Your task to perform on an android device: turn on location history Image 0: 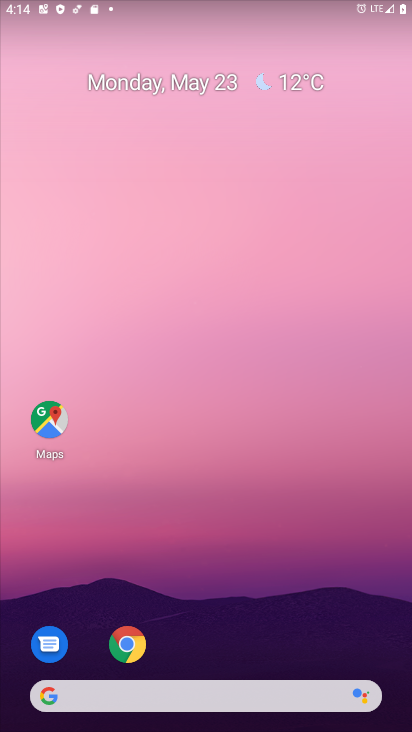
Step 0: drag from (266, 660) to (195, 90)
Your task to perform on an android device: turn on location history Image 1: 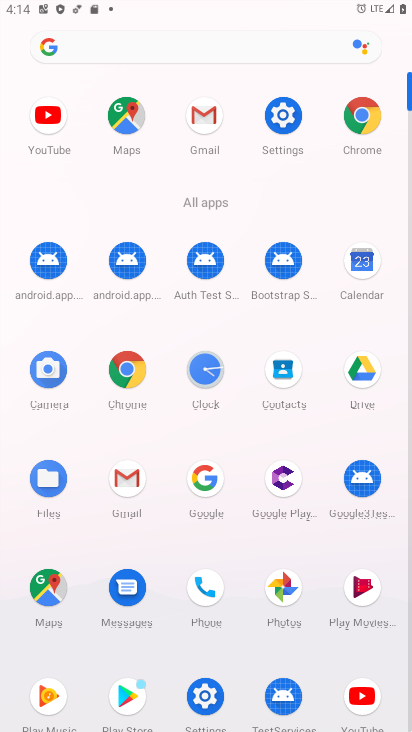
Step 1: click (275, 115)
Your task to perform on an android device: turn on location history Image 2: 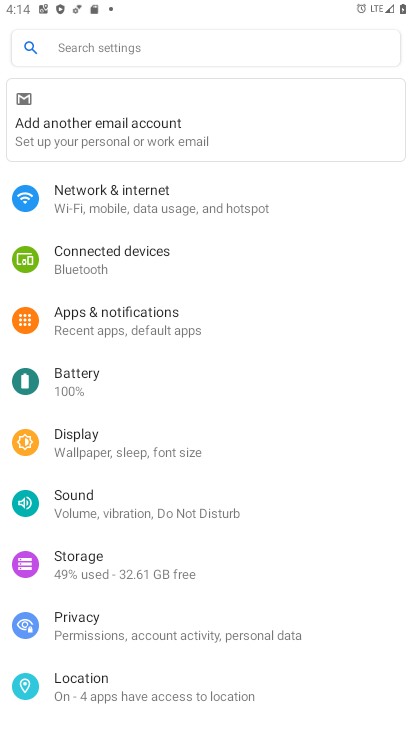
Step 2: press home button
Your task to perform on an android device: turn on location history Image 3: 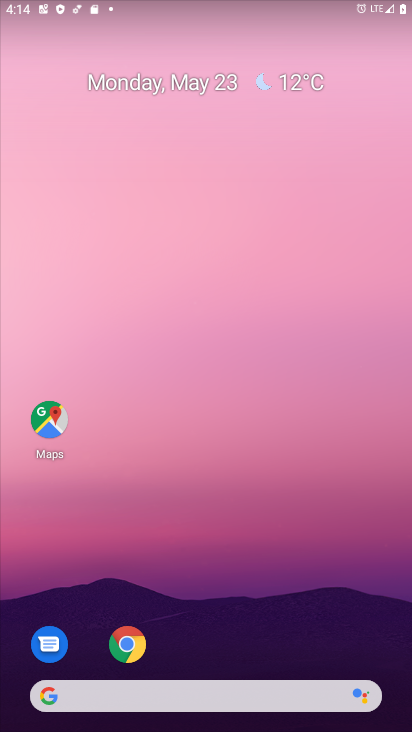
Step 3: click (55, 416)
Your task to perform on an android device: turn on location history Image 4: 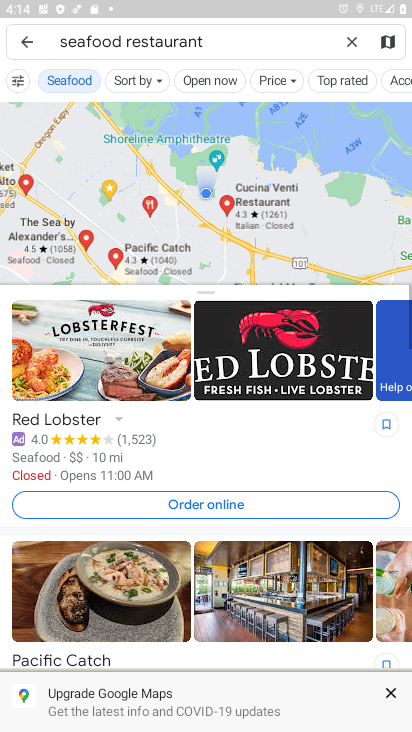
Step 4: click (28, 36)
Your task to perform on an android device: turn on location history Image 5: 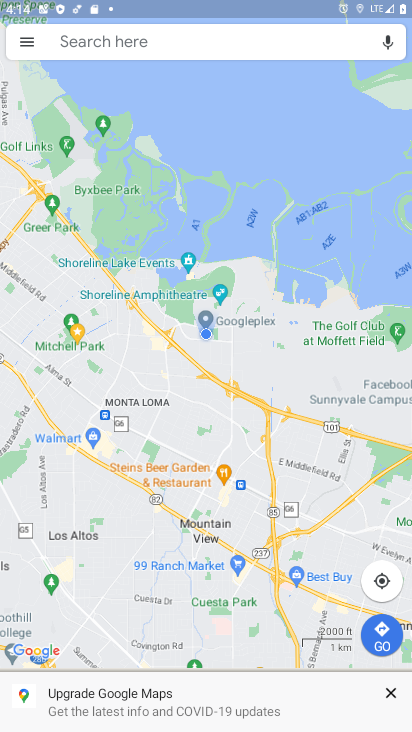
Step 5: click (28, 36)
Your task to perform on an android device: turn on location history Image 6: 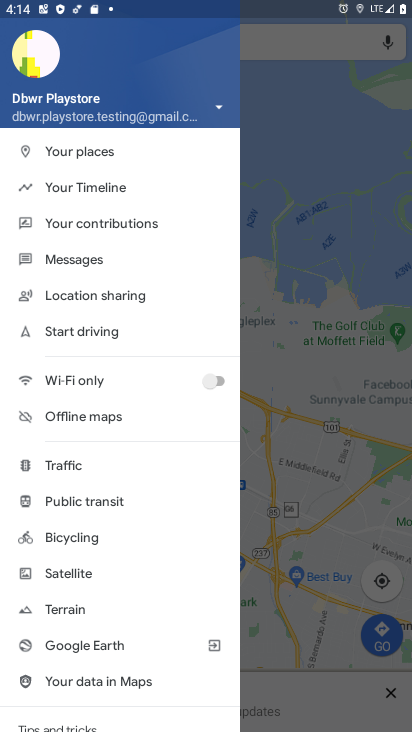
Step 6: click (110, 190)
Your task to perform on an android device: turn on location history Image 7: 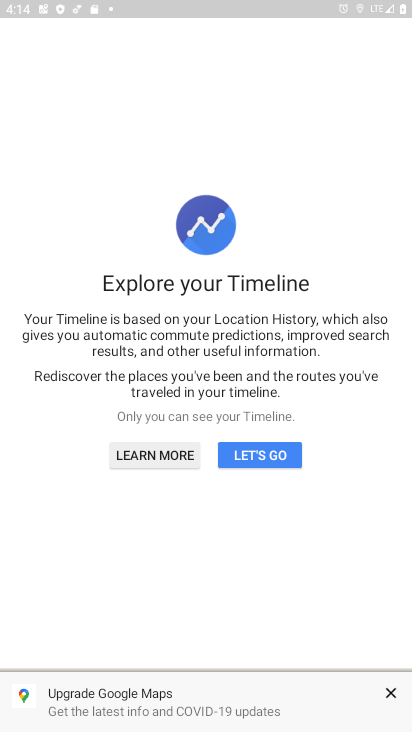
Step 7: click (260, 451)
Your task to perform on an android device: turn on location history Image 8: 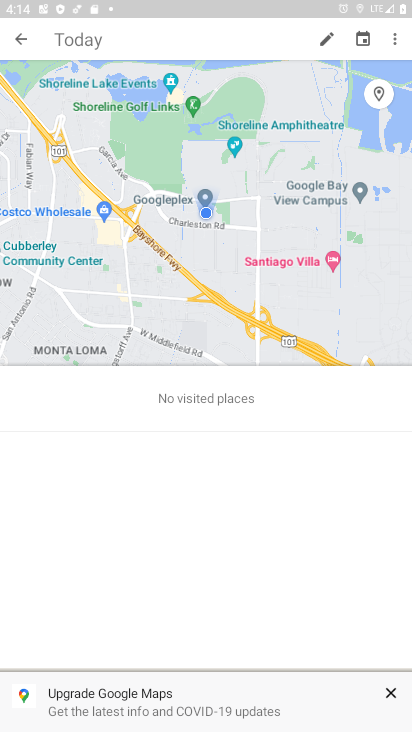
Step 8: click (399, 50)
Your task to perform on an android device: turn on location history Image 9: 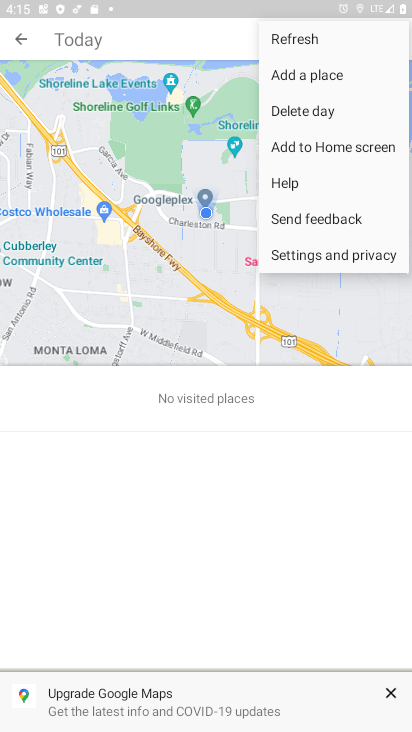
Step 9: click (356, 256)
Your task to perform on an android device: turn on location history Image 10: 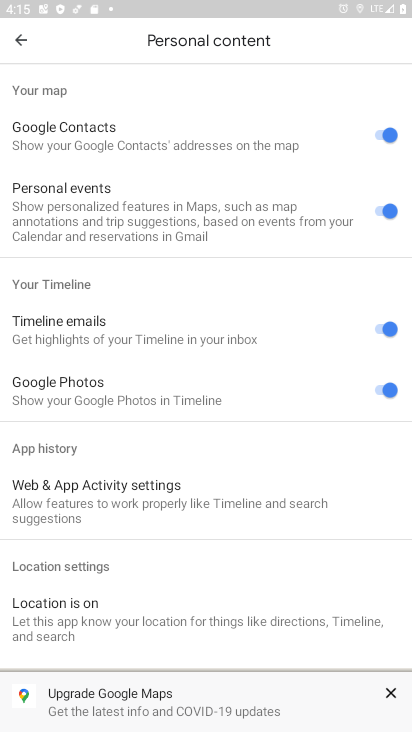
Step 10: drag from (250, 648) to (238, 304)
Your task to perform on an android device: turn on location history Image 11: 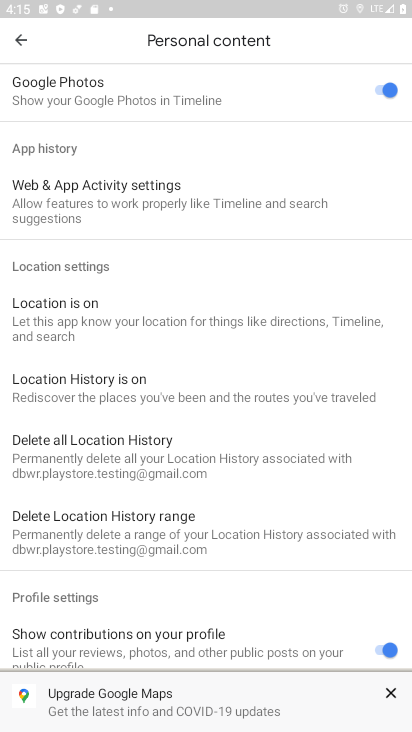
Step 11: click (162, 395)
Your task to perform on an android device: turn on location history Image 12: 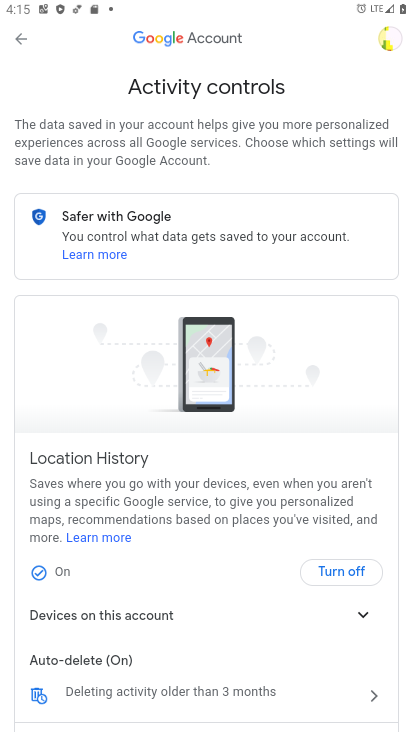
Step 12: task complete